Your task to perform on an android device: set the stopwatch Image 0: 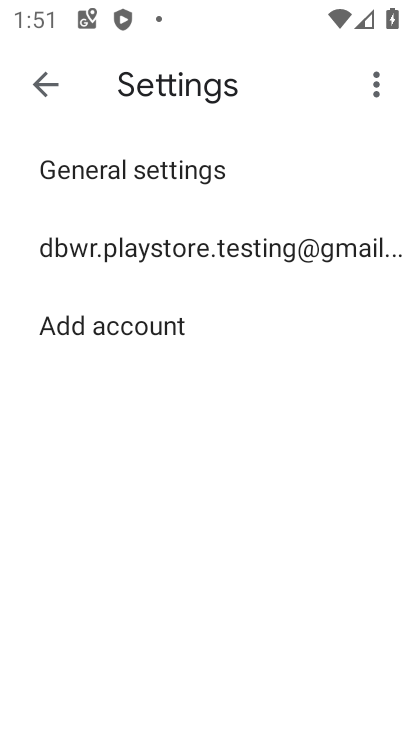
Step 0: press home button
Your task to perform on an android device: set the stopwatch Image 1: 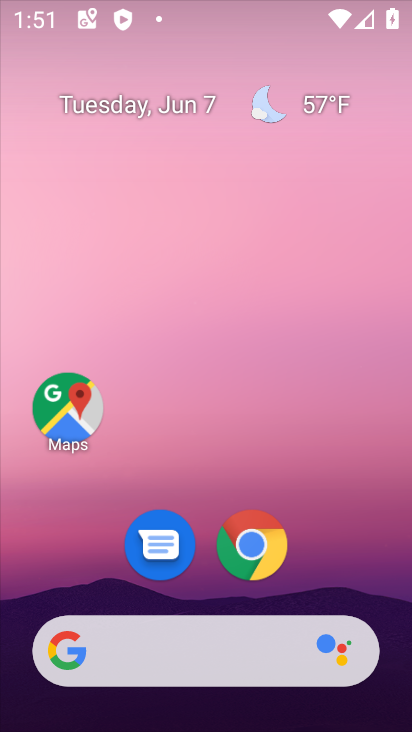
Step 1: drag from (388, 572) to (237, 18)
Your task to perform on an android device: set the stopwatch Image 2: 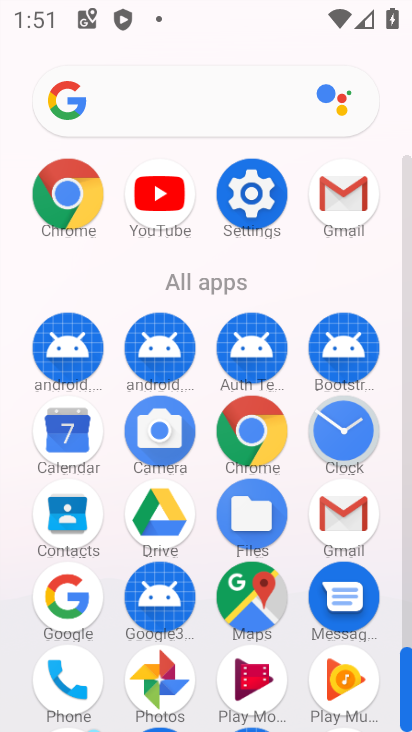
Step 2: click (340, 434)
Your task to perform on an android device: set the stopwatch Image 3: 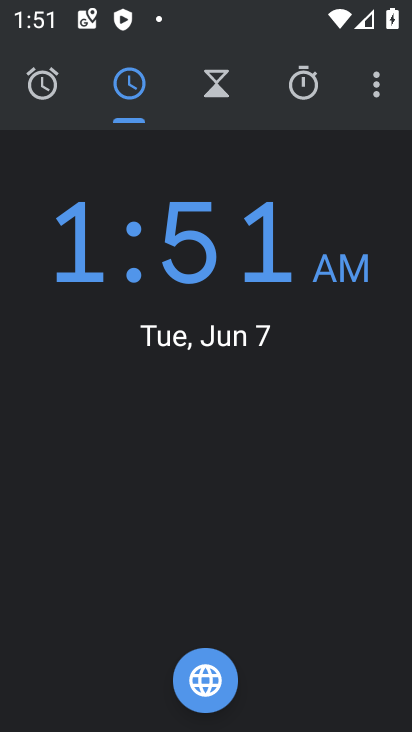
Step 3: click (297, 81)
Your task to perform on an android device: set the stopwatch Image 4: 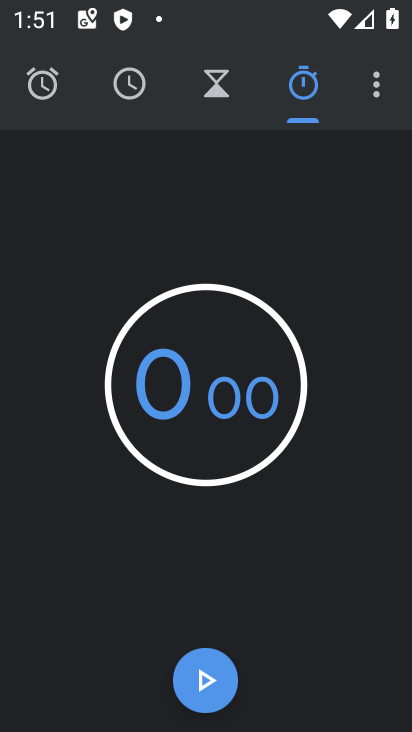
Step 4: click (197, 686)
Your task to perform on an android device: set the stopwatch Image 5: 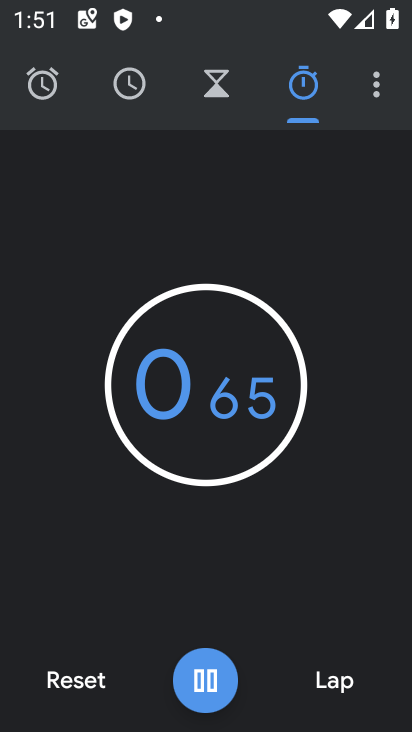
Step 5: task complete